Your task to perform on an android device: Open Chrome and go to settings Image 0: 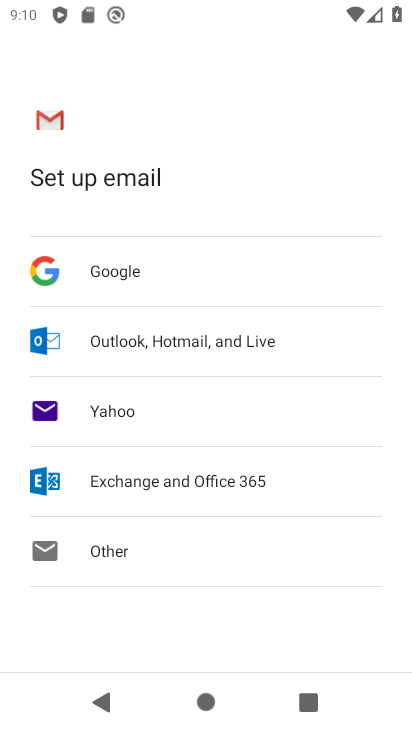
Step 0: click (216, 248)
Your task to perform on an android device: Open Chrome and go to settings Image 1: 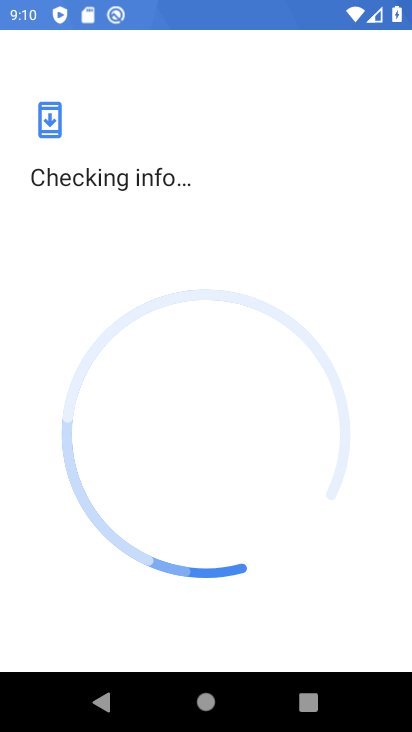
Step 1: press home button
Your task to perform on an android device: Open Chrome and go to settings Image 2: 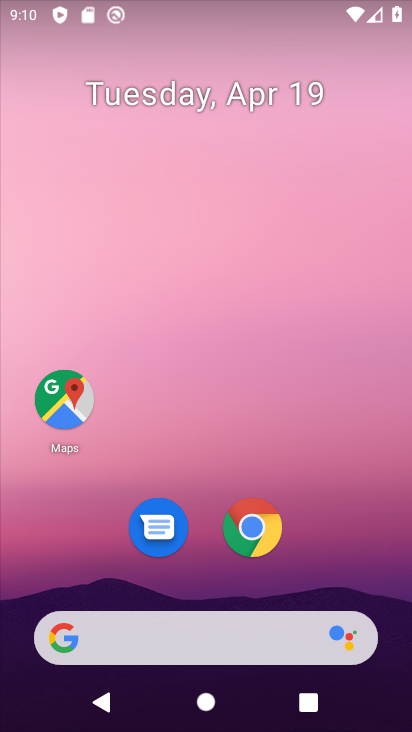
Step 2: drag from (266, 670) to (225, 134)
Your task to perform on an android device: Open Chrome and go to settings Image 3: 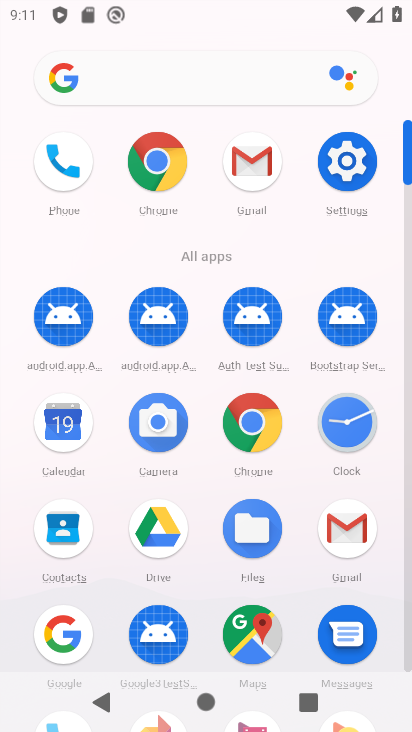
Step 3: click (245, 429)
Your task to perform on an android device: Open Chrome and go to settings Image 4: 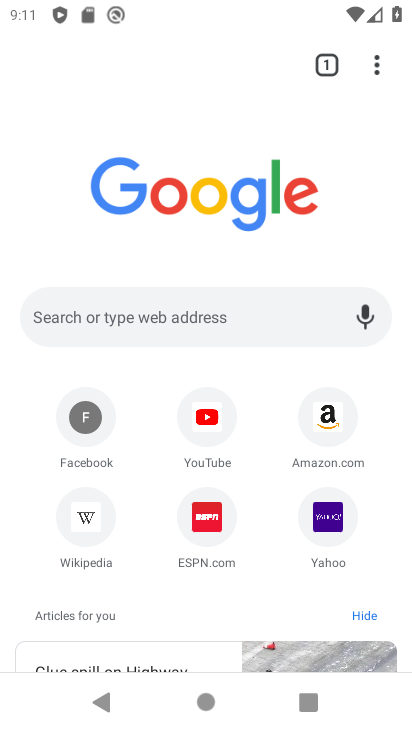
Step 4: click (379, 66)
Your task to perform on an android device: Open Chrome and go to settings Image 5: 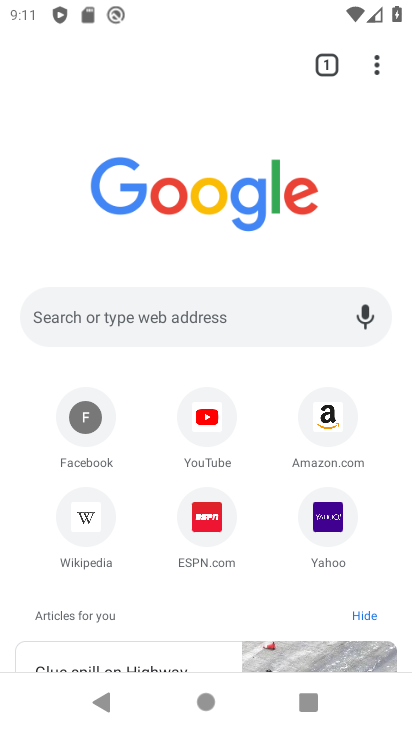
Step 5: click (379, 66)
Your task to perform on an android device: Open Chrome and go to settings Image 6: 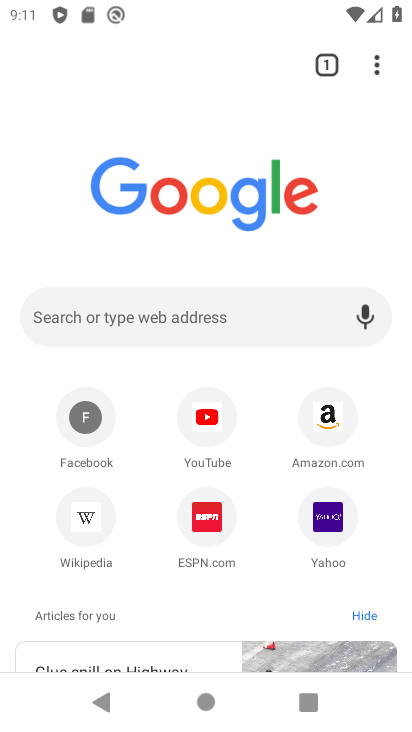
Step 6: click (379, 66)
Your task to perform on an android device: Open Chrome and go to settings Image 7: 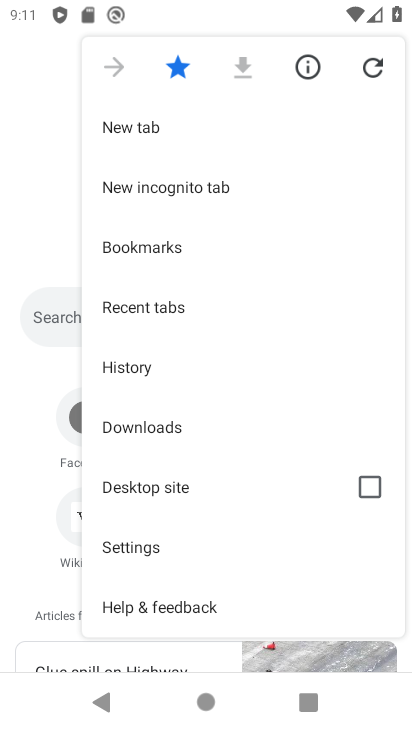
Step 7: click (141, 539)
Your task to perform on an android device: Open Chrome and go to settings Image 8: 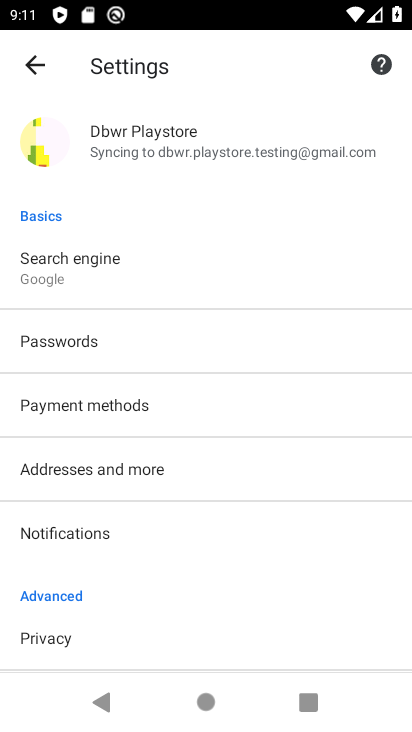
Step 8: task complete